Your task to perform on an android device: Open the Play Movies app and select the watchlist tab. Image 0: 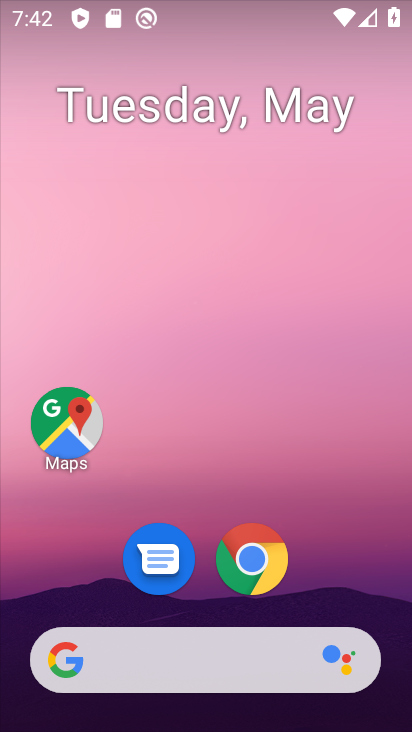
Step 0: drag from (379, 563) to (383, 23)
Your task to perform on an android device: Open the Play Movies app and select the watchlist tab. Image 1: 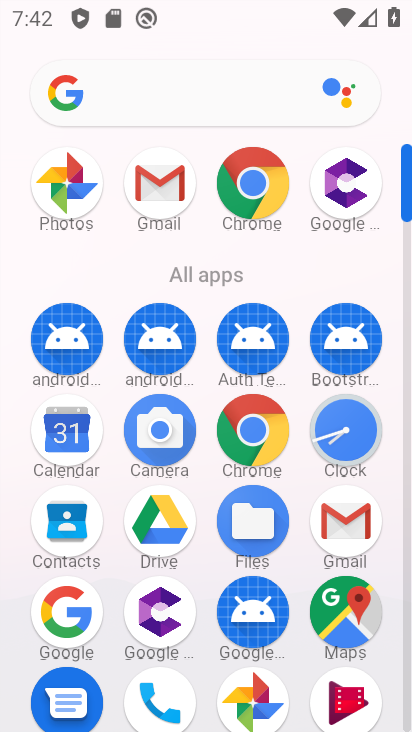
Step 1: drag from (403, 475) to (390, 98)
Your task to perform on an android device: Open the Play Movies app and select the watchlist tab. Image 2: 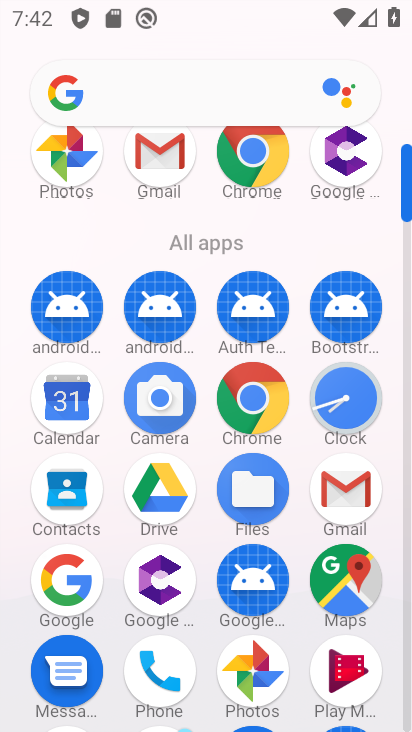
Step 2: drag from (384, 492) to (366, 94)
Your task to perform on an android device: Open the Play Movies app and select the watchlist tab. Image 3: 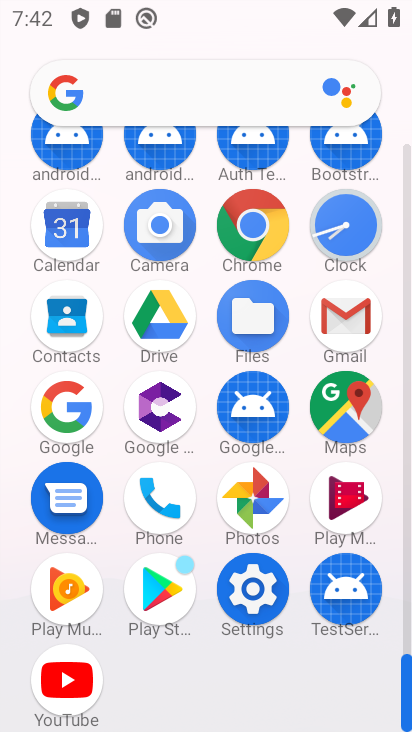
Step 3: click (355, 488)
Your task to perform on an android device: Open the Play Movies app and select the watchlist tab. Image 4: 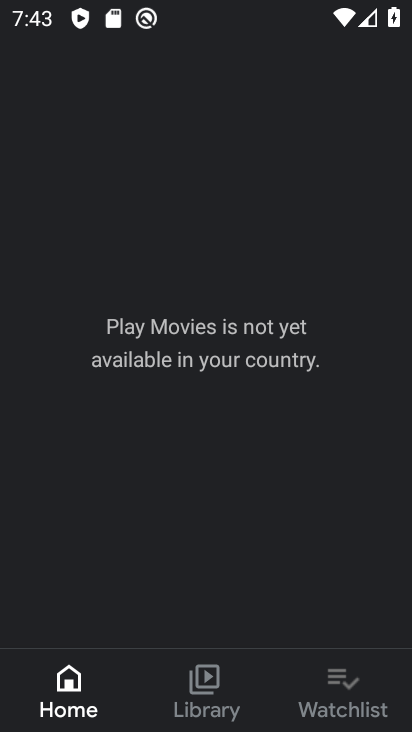
Step 4: click (317, 700)
Your task to perform on an android device: Open the Play Movies app and select the watchlist tab. Image 5: 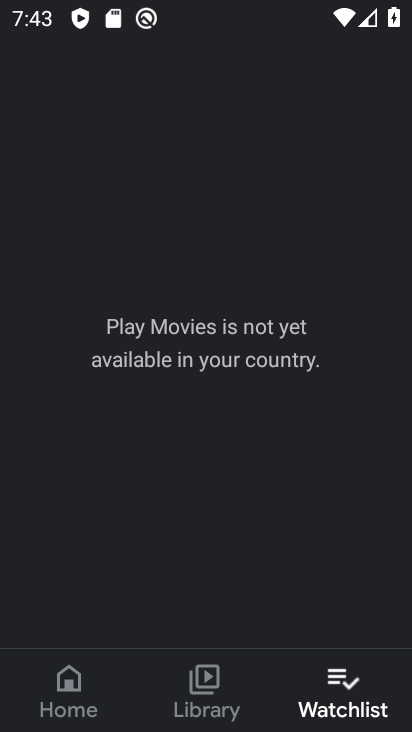
Step 5: task complete